Your task to perform on an android device: turn pop-ups on in chrome Image 0: 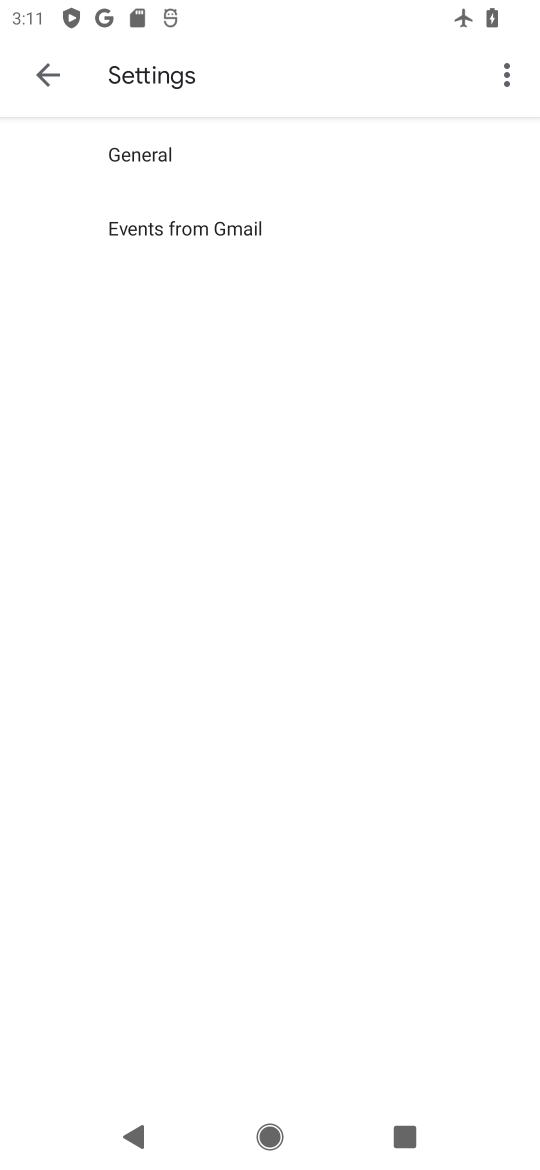
Step 0: press home button
Your task to perform on an android device: turn pop-ups on in chrome Image 1: 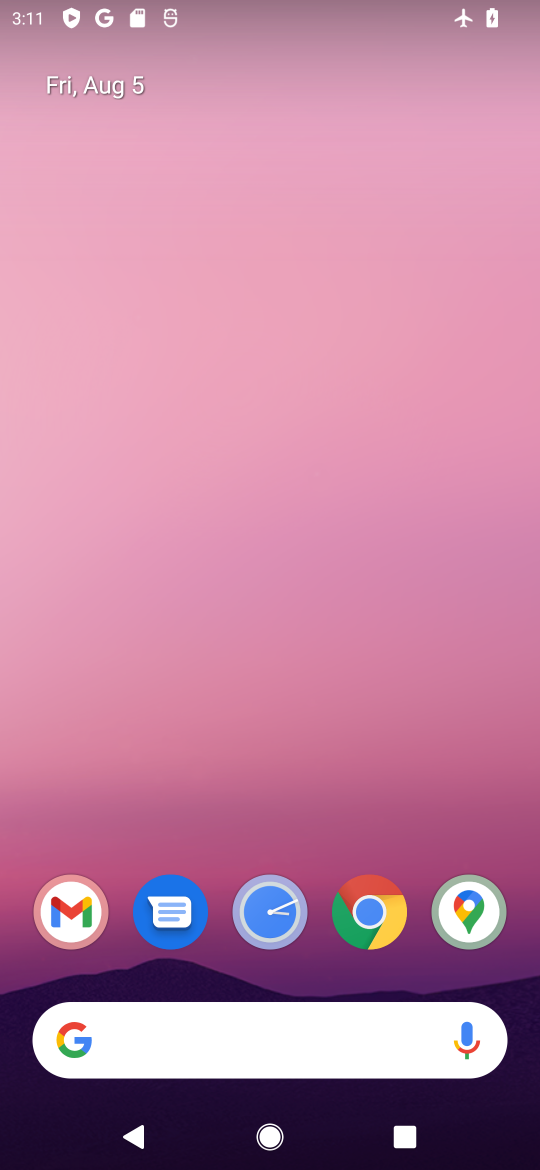
Step 1: click (378, 935)
Your task to perform on an android device: turn pop-ups on in chrome Image 2: 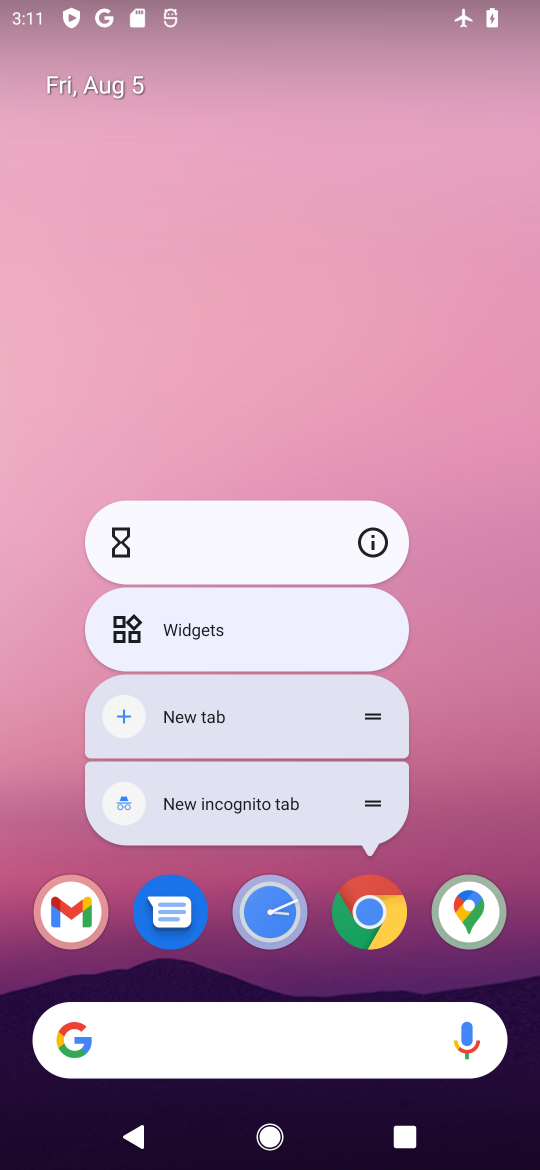
Step 2: click (383, 922)
Your task to perform on an android device: turn pop-ups on in chrome Image 3: 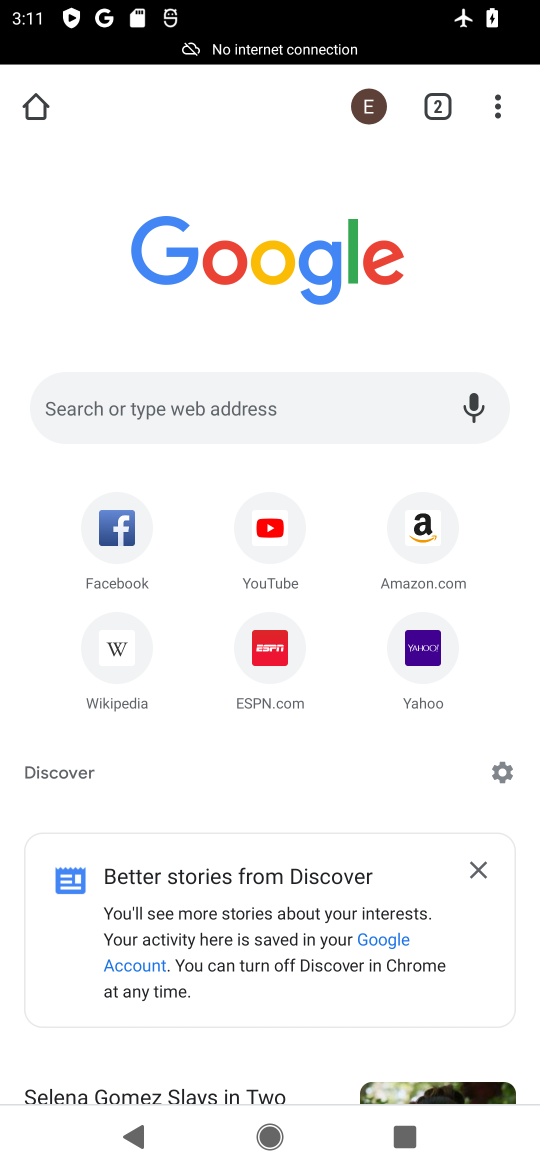
Step 3: click (494, 102)
Your task to perform on an android device: turn pop-ups on in chrome Image 4: 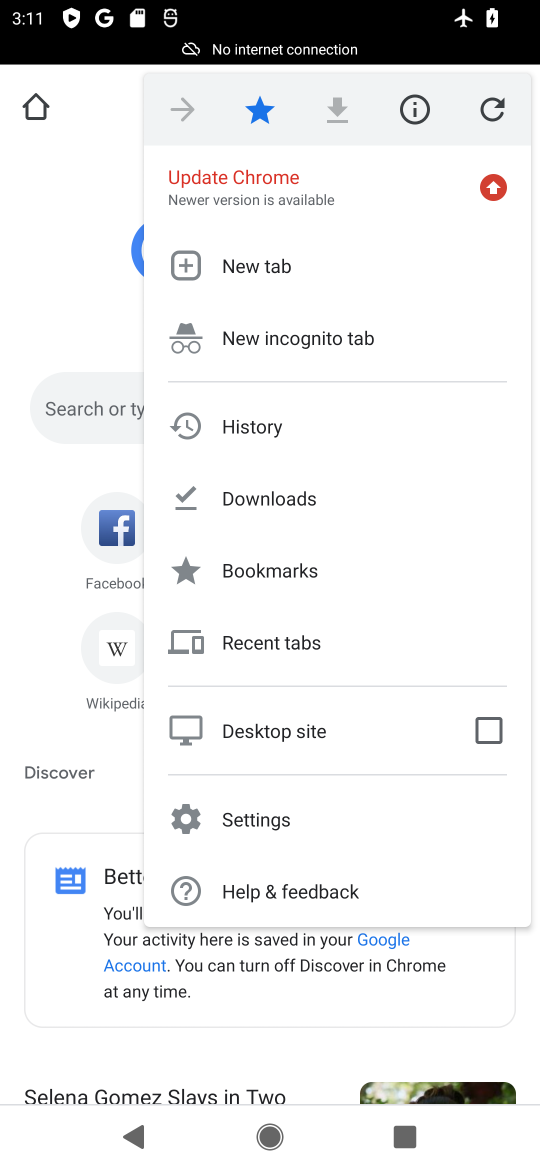
Step 4: click (259, 819)
Your task to perform on an android device: turn pop-ups on in chrome Image 5: 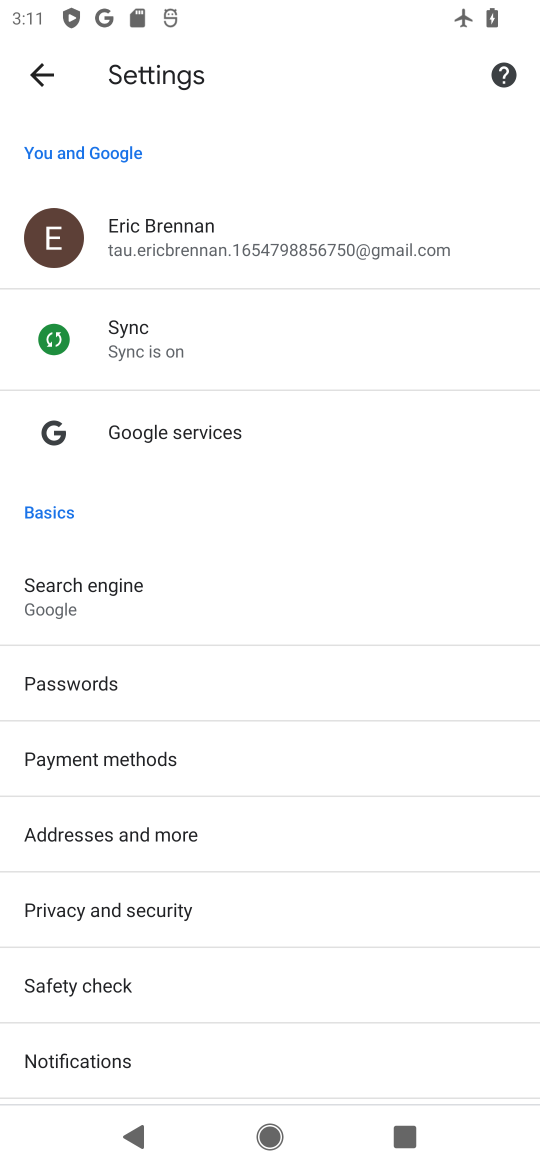
Step 5: drag from (139, 899) to (156, 347)
Your task to perform on an android device: turn pop-ups on in chrome Image 6: 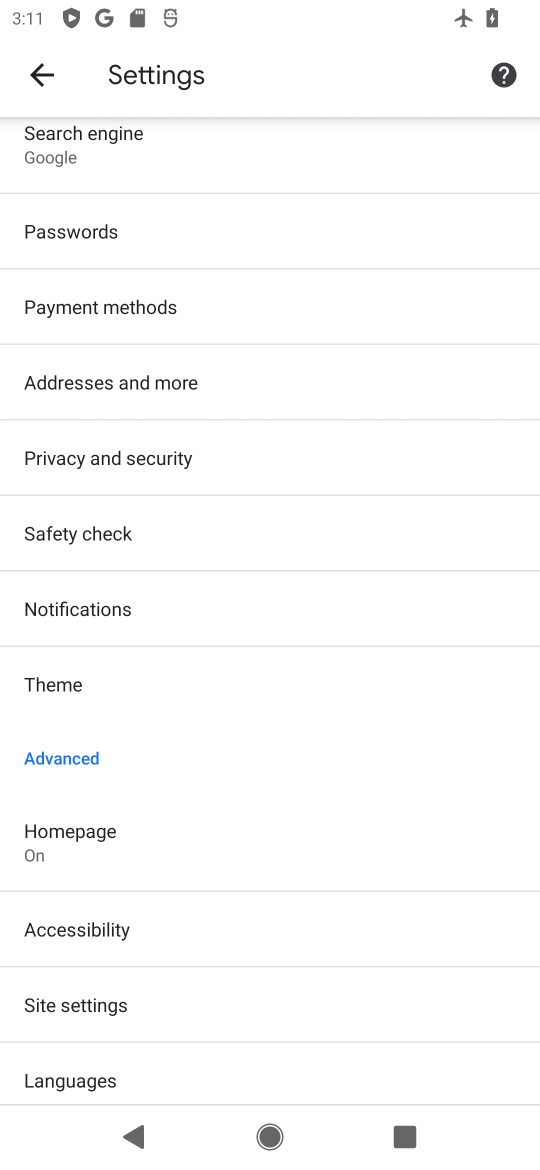
Step 6: drag from (153, 902) to (154, 480)
Your task to perform on an android device: turn pop-ups on in chrome Image 7: 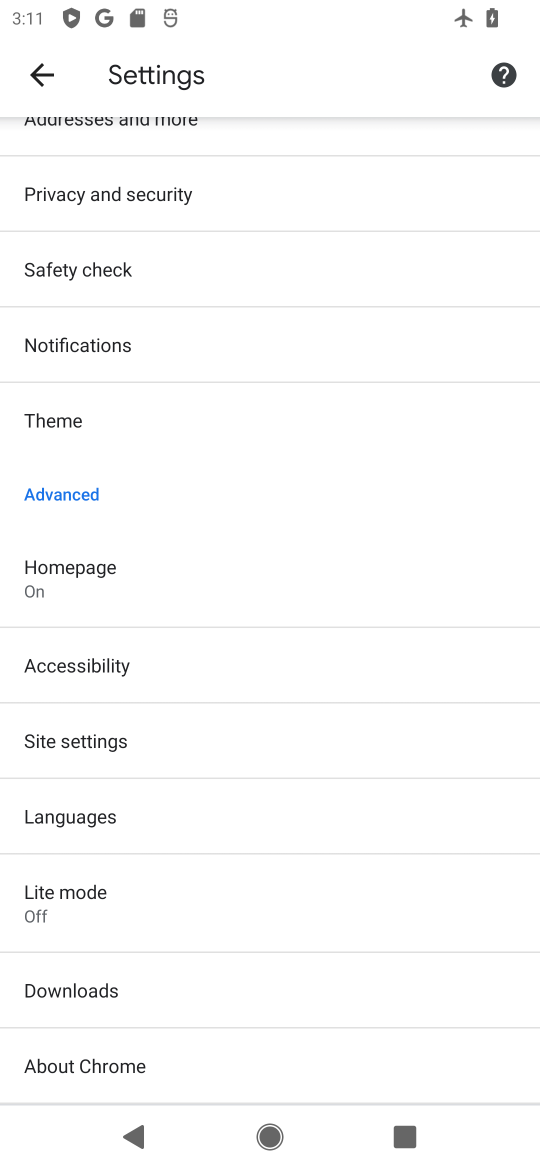
Step 7: click (91, 747)
Your task to perform on an android device: turn pop-ups on in chrome Image 8: 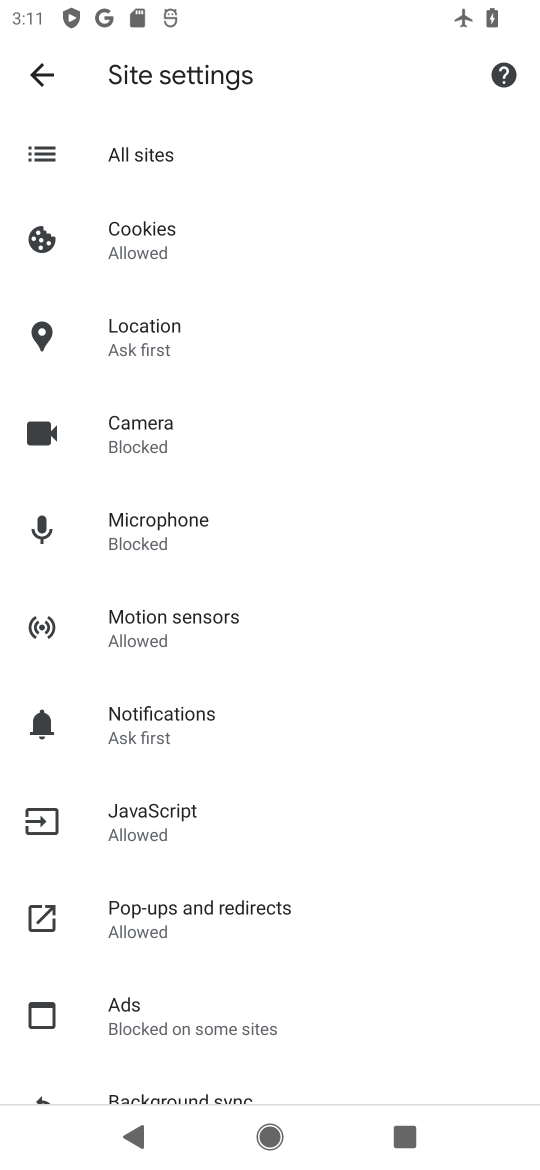
Step 8: click (181, 903)
Your task to perform on an android device: turn pop-ups on in chrome Image 9: 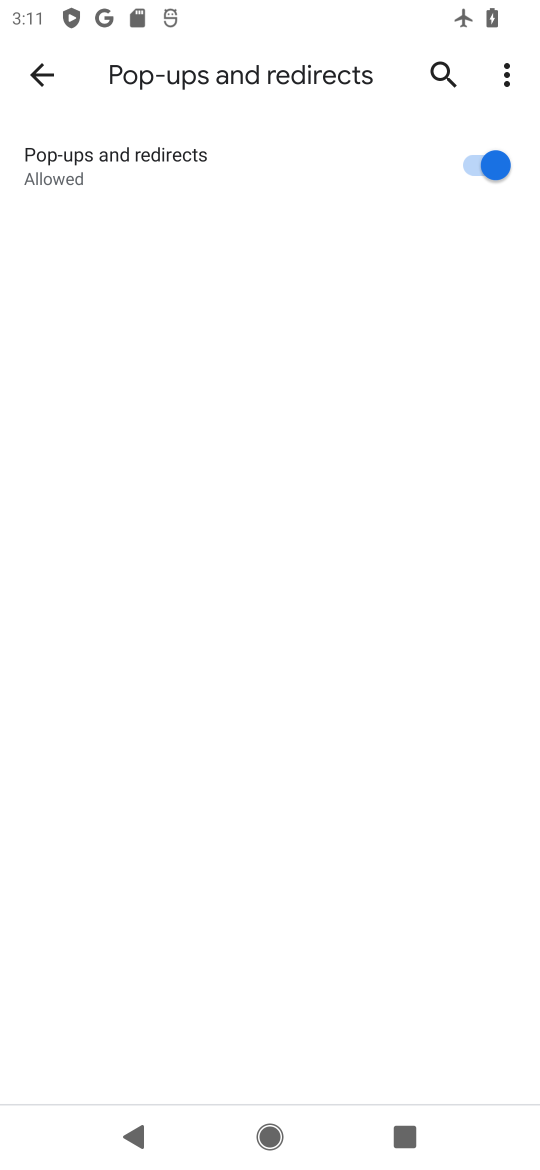
Step 9: task complete